Your task to perform on an android device: change notifications settings Image 0: 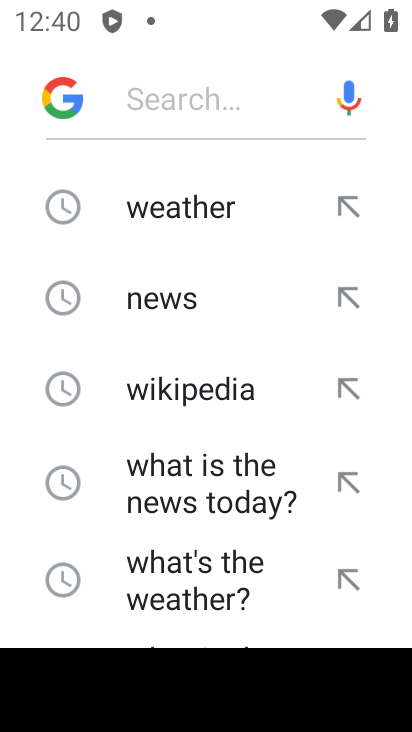
Step 0: press home button
Your task to perform on an android device: change notifications settings Image 1: 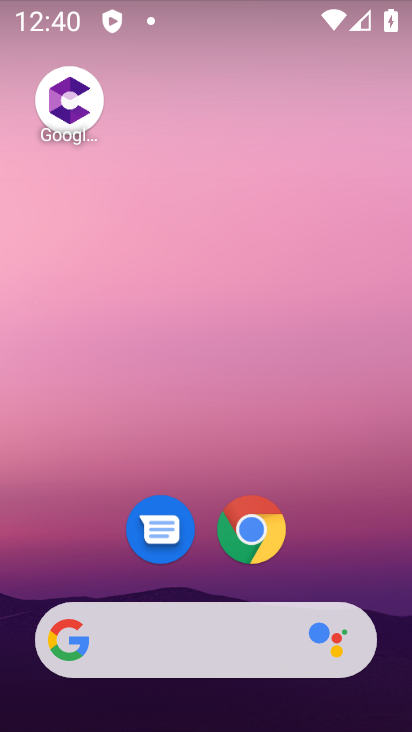
Step 1: drag from (319, 553) to (346, 206)
Your task to perform on an android device: change notifications settings Image 2: 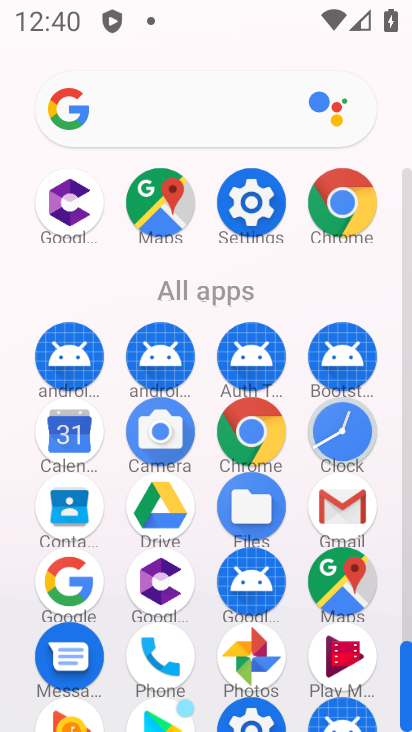
Step 2: click (248, 188)
Your task to perform on an android device: change notifications settings Image 3: 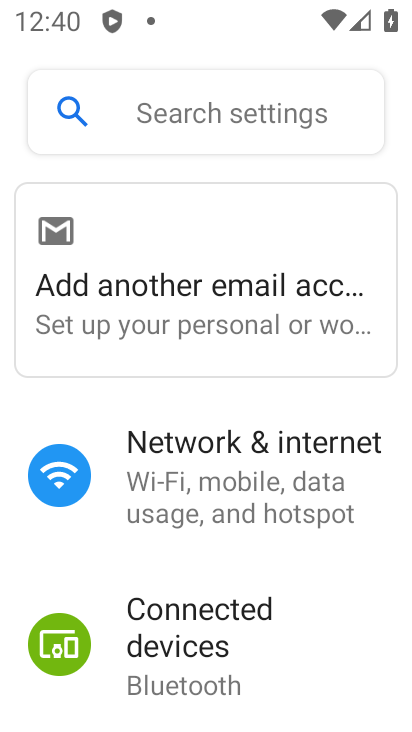
Step 3: drag from (212, 678) to (260, 399)
Your task to perform on an android device: change notifications settings Image 4: 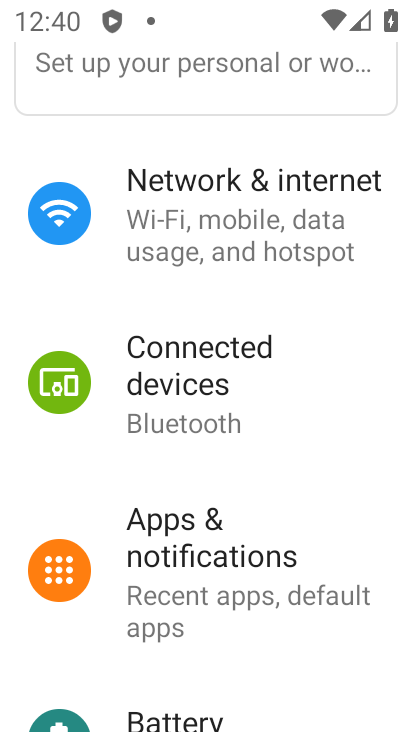
Step 4: click (196, 529)
Your task to perform on an android device: change notifications settings Image 5: 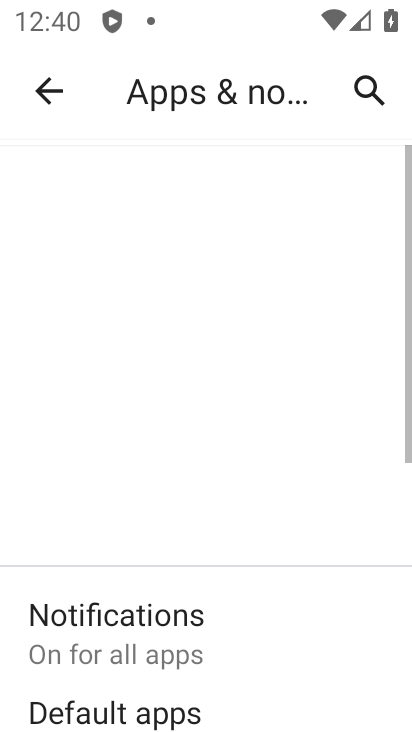
Step 5: click (206, 549)
Your task to perform on an android device: change notifications settings Image 6: 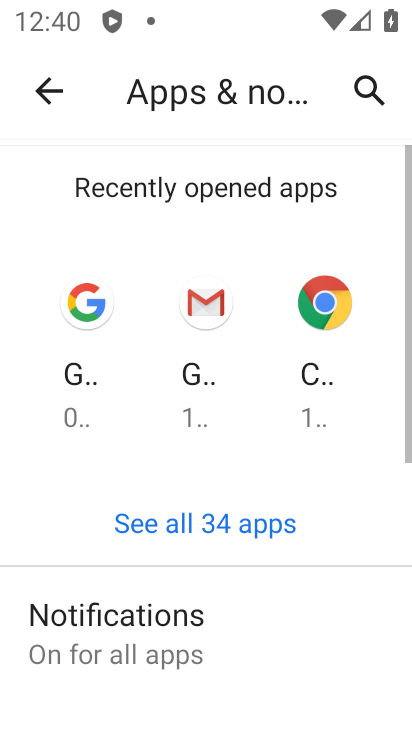
Step 6: drag from (237, 617) to (291, 288)
Your task to perform on an android device: change notifications settings Image 7: 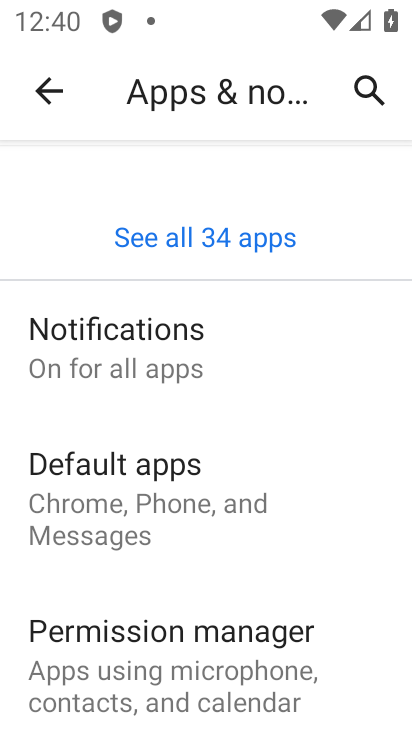
Step 7: click (135, 338)
Your task to perform on an android device: change notifications settings Image 8: 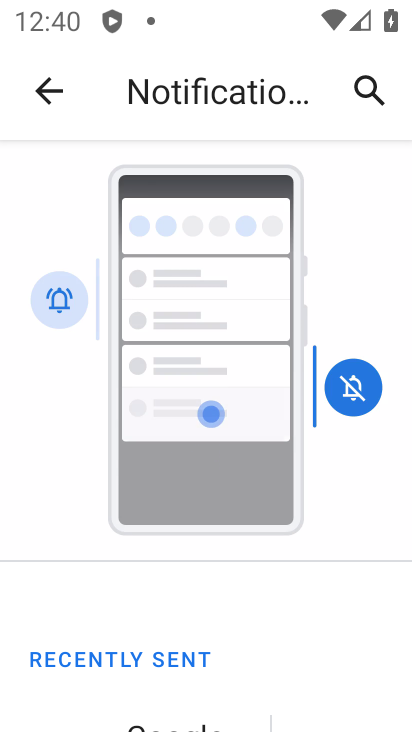
Step 8: drag from (278, 596) to (371, 223)
Your task to perform on an android device: change notifications settings Image 9: 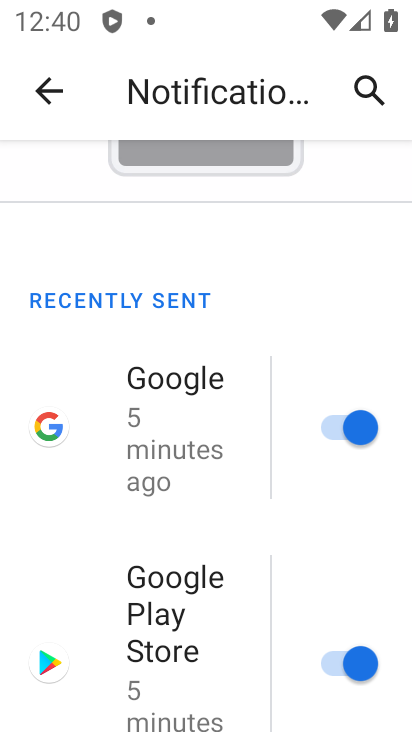
Step 9: drag from (282, 501) to (325, 301)
Your task to perform on an android device: change notifications settings Image 10: 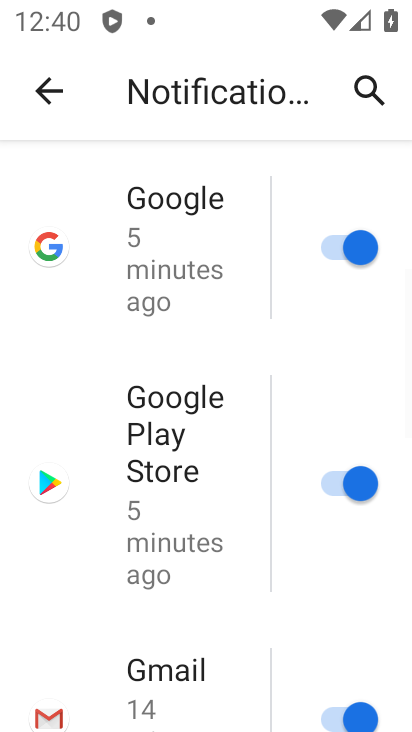
Step 10: click (350, 261)
Your task to perform on an android device: change notifications settings Image 11: 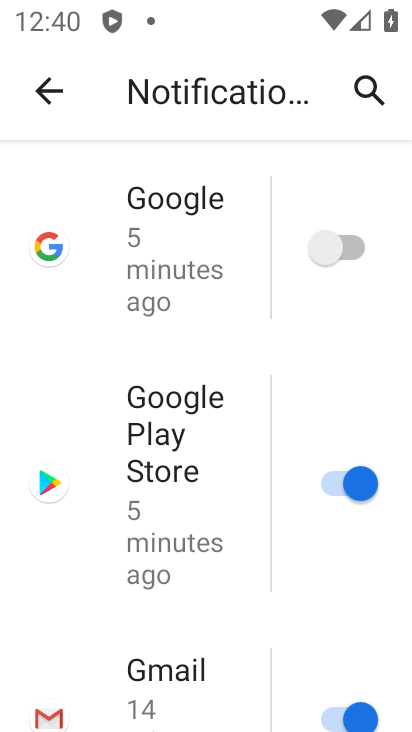
Step 11: click (325, 480)
Your task to perform on an android device: change notifications settings Image 12: 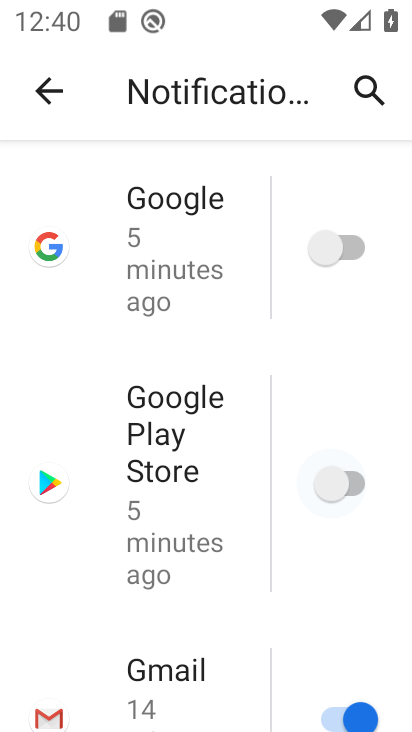
Step 12: click (343, 704)
Your task to perform on an android device: change notifications settings Image 13: 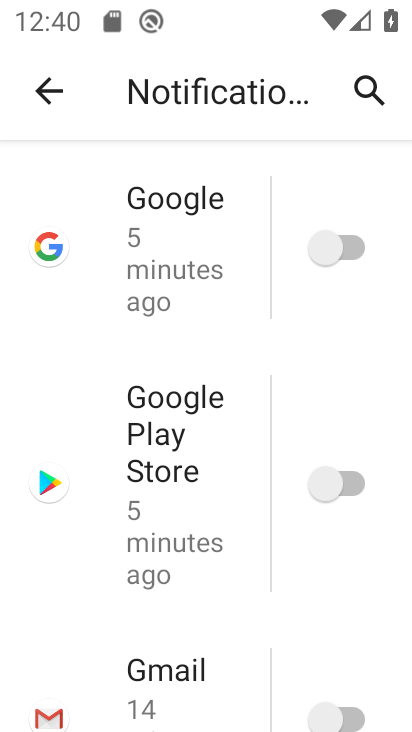
Step 13: drag from (251, 622) to (295, 237)
Your task to perform on an android device: change notifications settings Image 14: 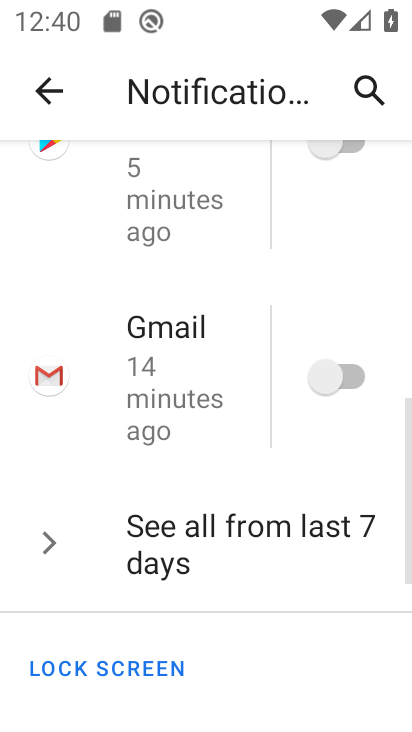
Step 14: click (178, 548)
Your task to perform on an android device: change notifications settings Image 15: 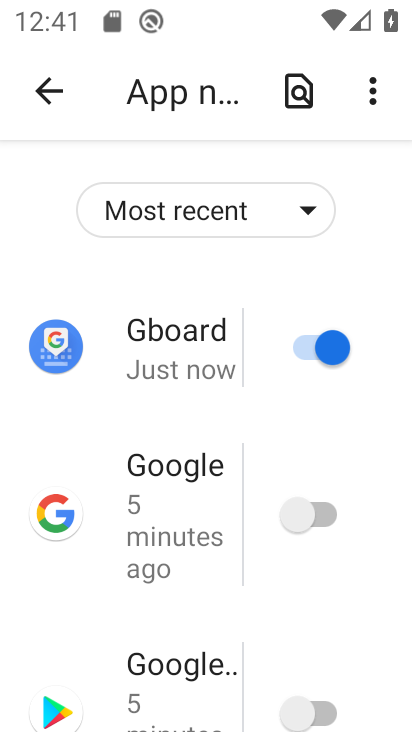
Step 15: drag from (198, 637) to (211, 447)
Your task to perform on an android device: change notifications settings Image 16: 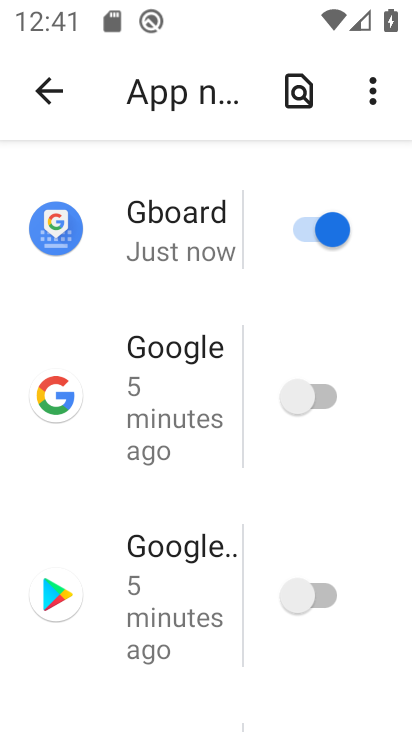
Step 16: click (316, 214)
Your task to perform on an android device: change notifications settings Image 17: 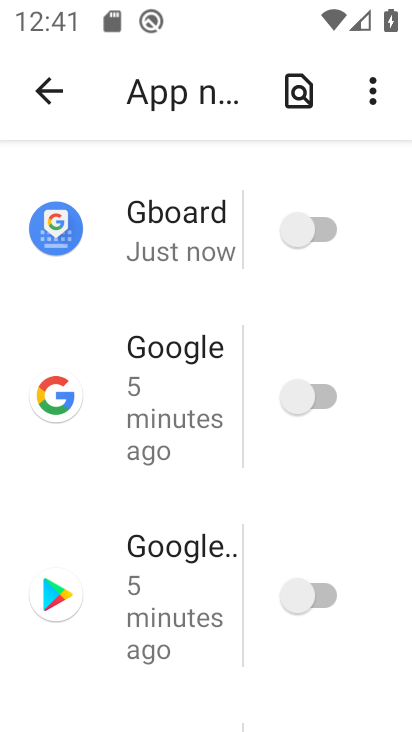
Step 17: drag from (212, 547) to (244, 242)
Your task to perform on an android device: change notifications settings Image 18: 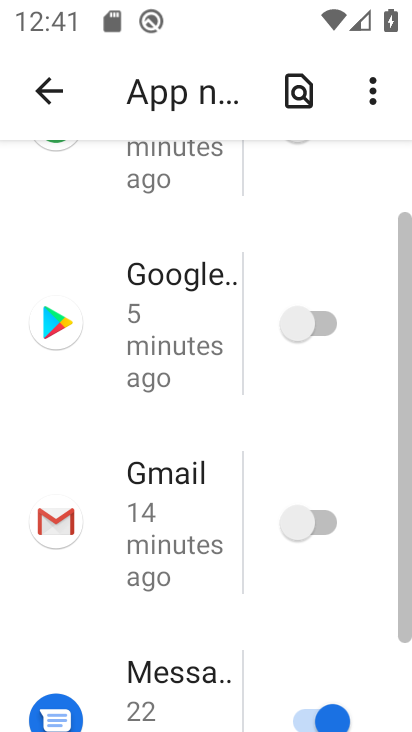
Step 18: drag from (186, 623) to (237, 279)
Your task to perform on an android device: change notifications settings Image 19: 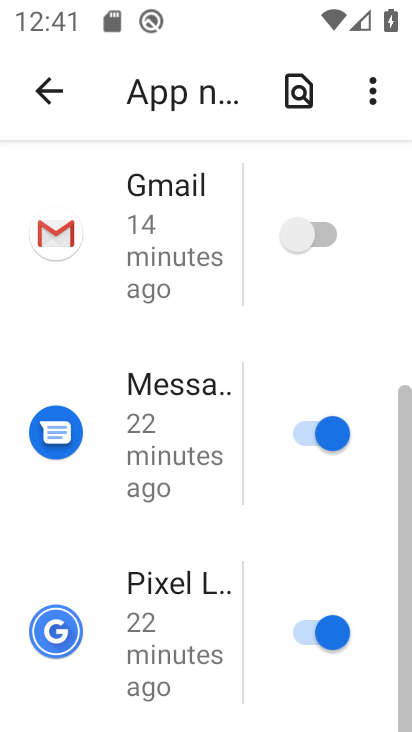
Step 19: click (279, 417)
Your task to perform on an android device: change notifications settings Image 20: 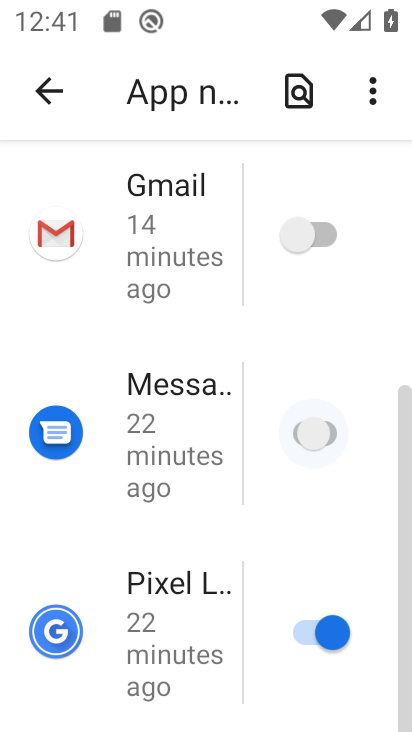
Step 20: click (332, 631)
Your task to perform on an android device: change notifications settings Image 21: 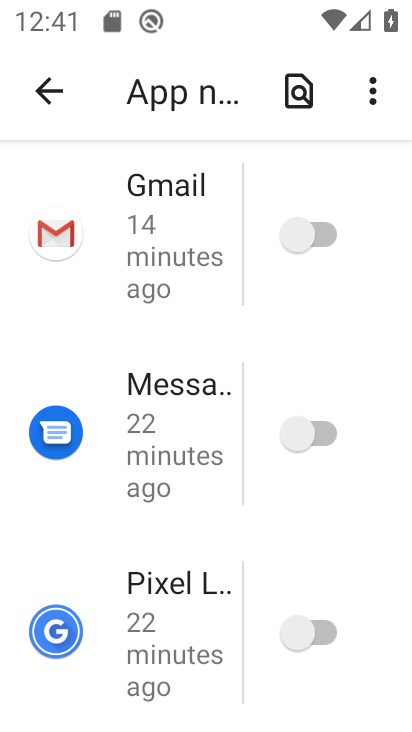
Step 21: task complete